Your task to perform on an android device: Open Maps and search for coffee Image 0: 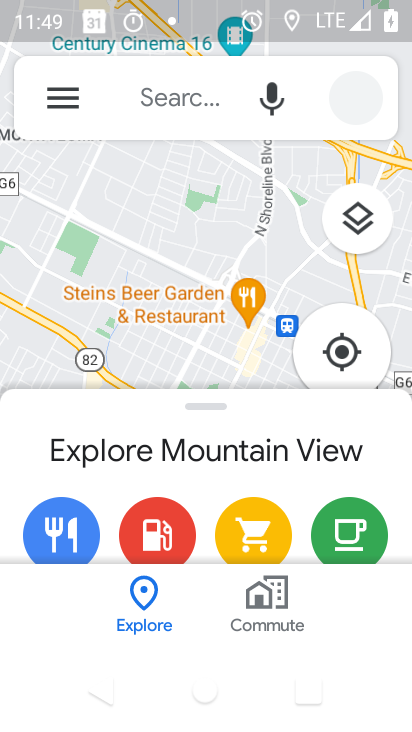
Step 0: drag from (276, 498) to (287, 117)
Your task to perform on an android device: Open Maps and search for coffee Image 1: 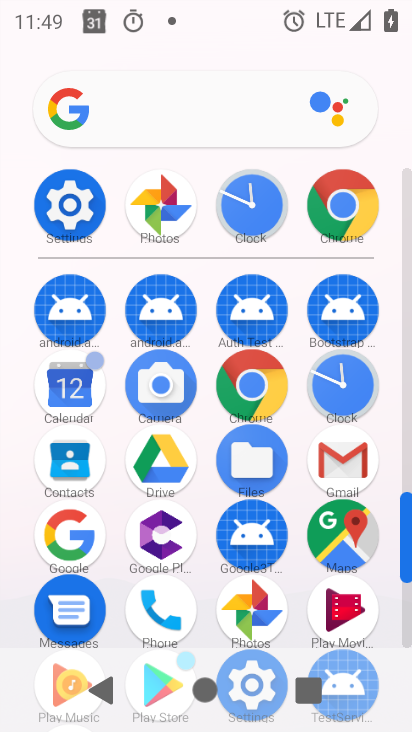
Step 1: click (256, 381)
Your task to perform on an android device: Open Maps and search for coffee Image 2: 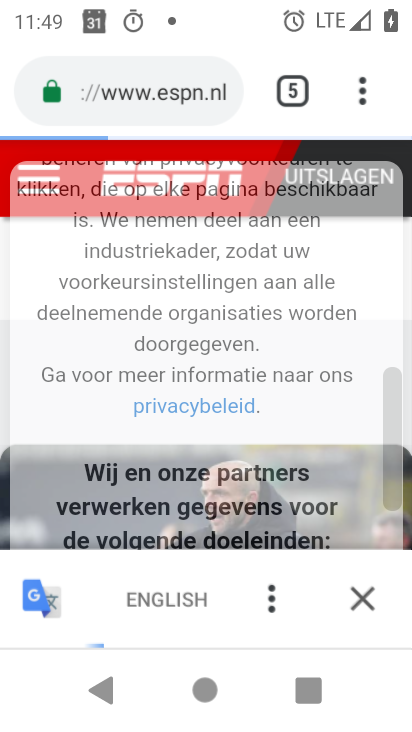
Step 2: press back button
Your task to perform on an android device: Open Maps and search for coffee Image 3: 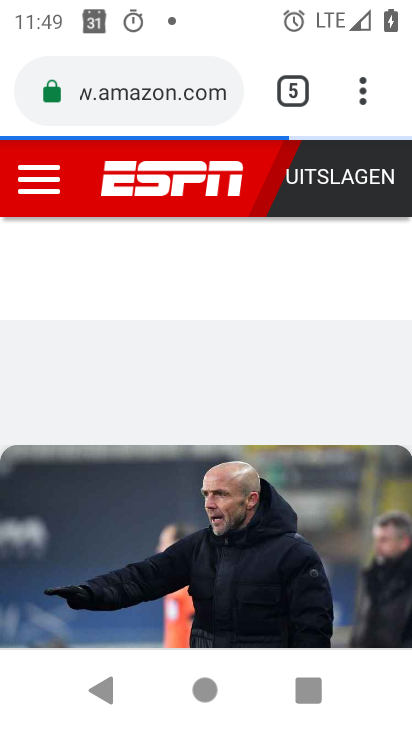
Step 3: press back button
Your task to perform on an android device: Open Maps and search for coffee Image 4: 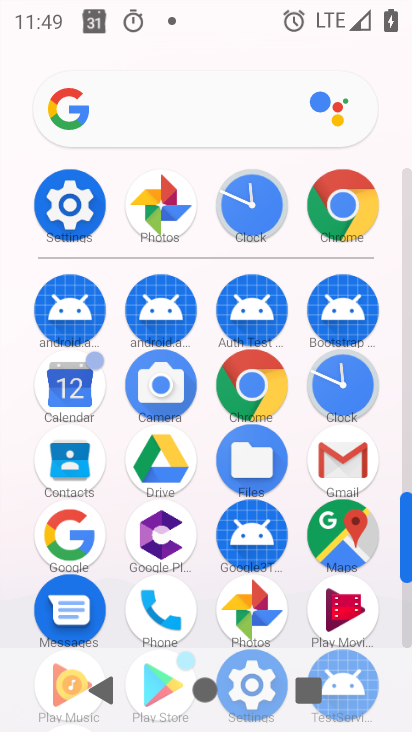
Step 4: click (359, 519)
Your task to perform on an android device: Open Maps and search for coffee Image 5: 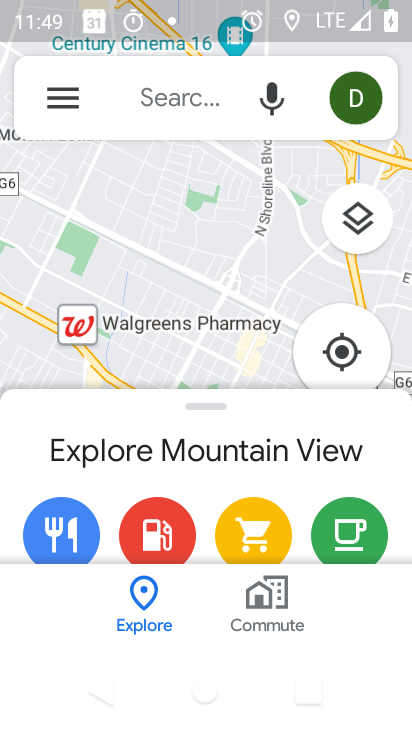
Step 5: click (166, 104)
Your task to perform on an android device: Open Maps and search for coffee Image 6: 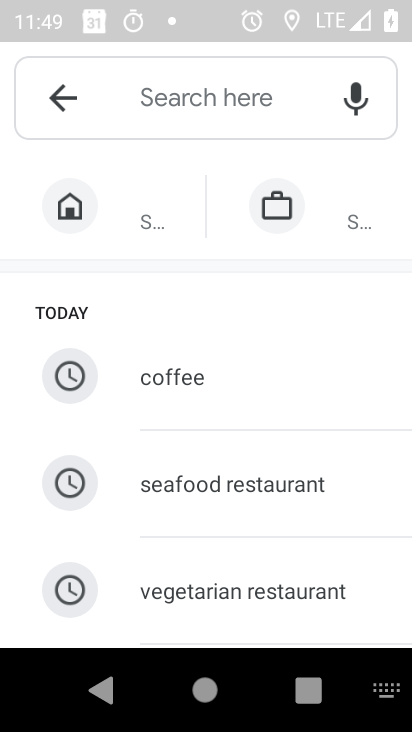
Step 6: type "coffee"
Your task to perform on an android device: Open Maps and search for coffee Image 7: 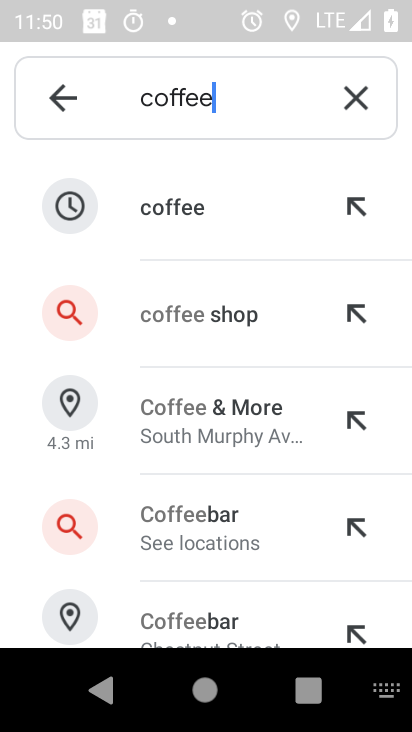
Step 7: click (233, 238)
Your task to perform on an android device: Open Maps and search for coffee Image 8: 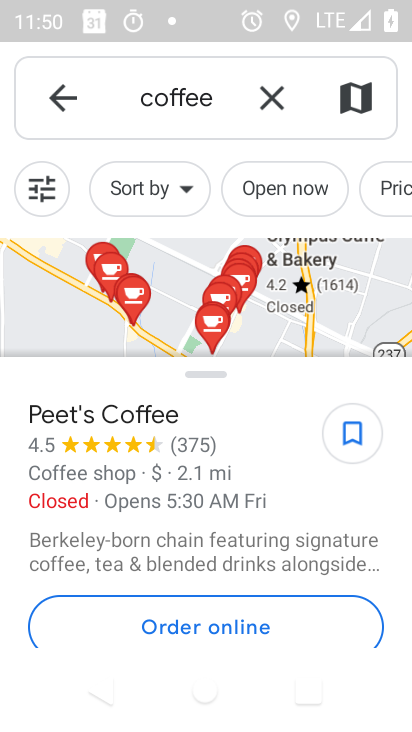
Step 8: task complete